Your task to perform on an android device: turn notification dots off Image 0: 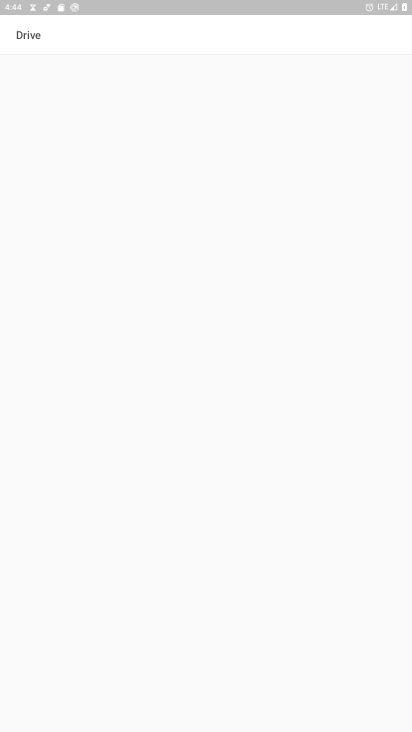
Step 0: press home button
Your task to perform on an android device: turn notification dots off Image 1: 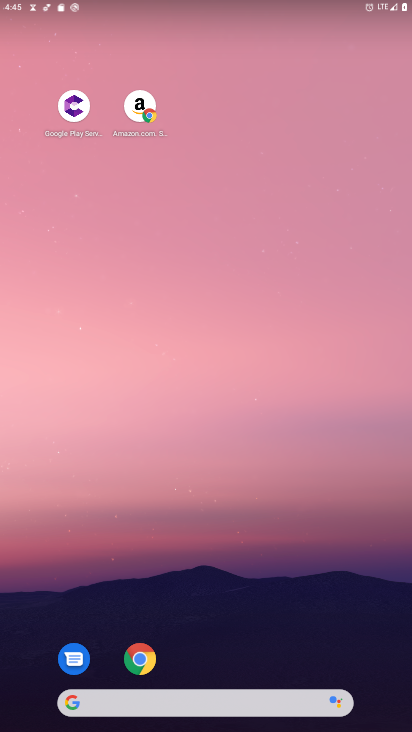
Step 1: drag from (144, 699) to (239, 50)
Your task to perform on an android device: turn notification dots off Image 2: 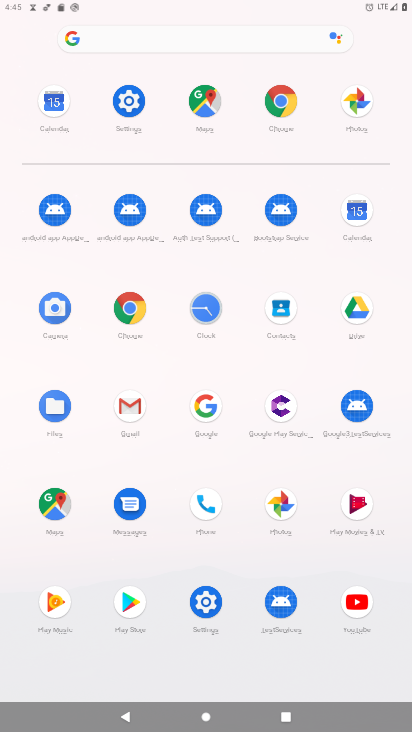
Step 2: click (130, 101)
Your task to perform on an android device: turn notification dots off Image 3: 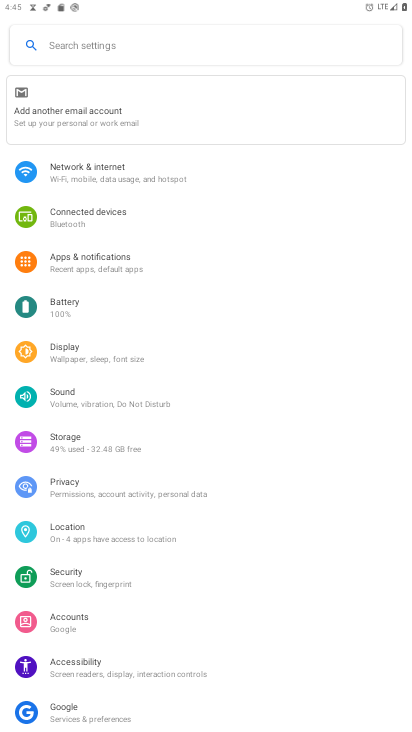
Step 3: click (107, 263)
Your task to perform on an android device: turn notification dots off Image 4: 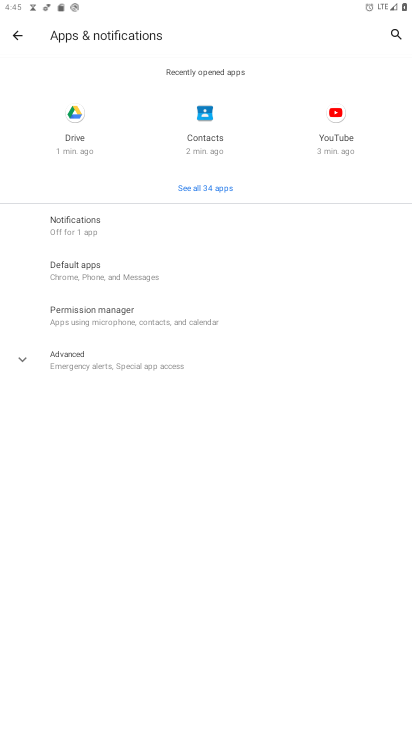
Step 4: click (69, 237)
Your task to perform on an android device: turn notification dots off Image 5: 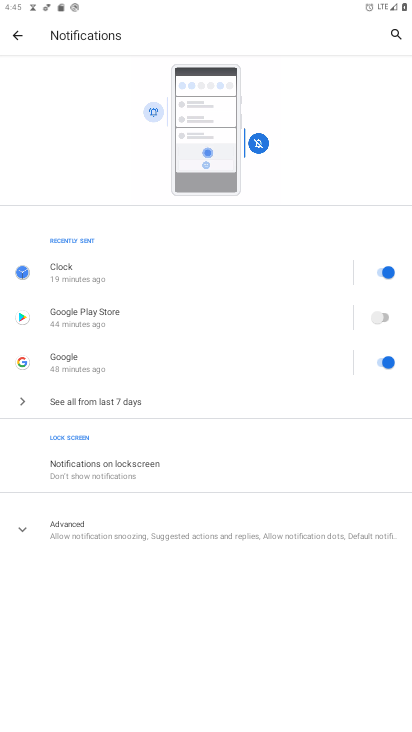
Step 5: click (108, 531)
Your task to perform on an android device: turn notification dots off Image 6: 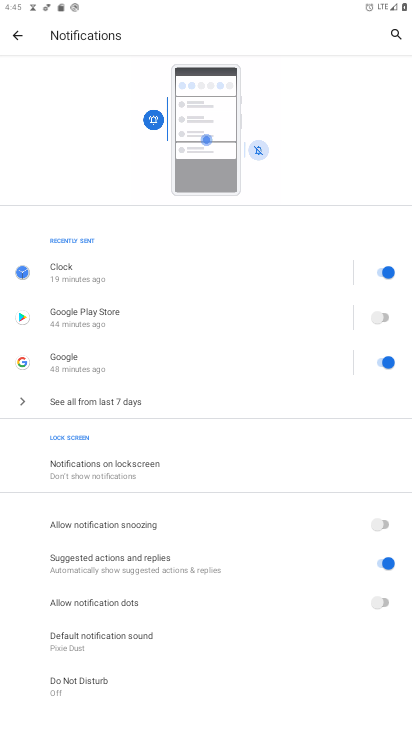
Step 6: task complete